Your task to perform on an android device: Search for the best rated mechanical keyboard on Amazon. Image 0: 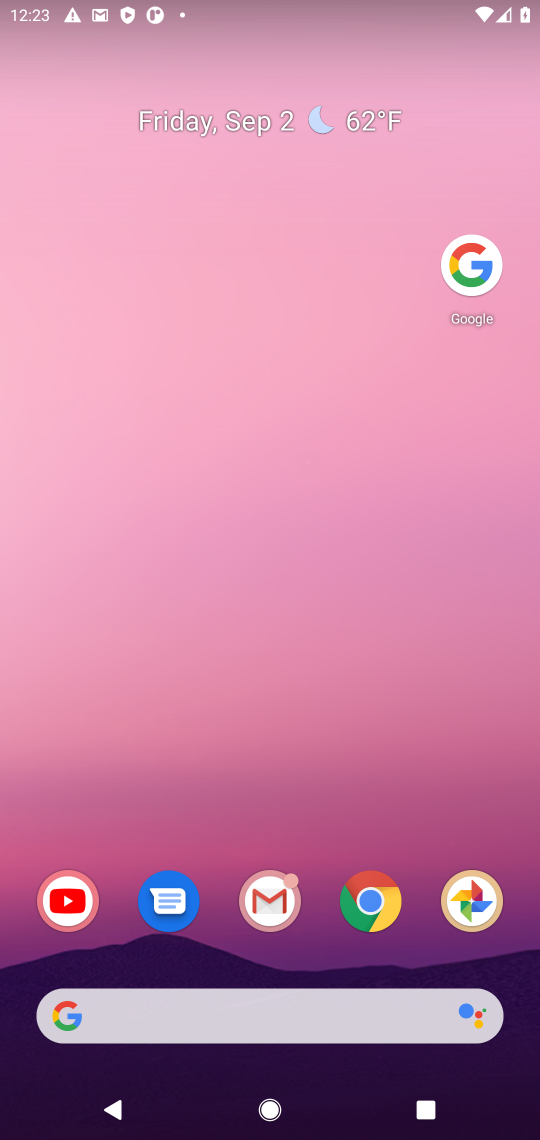
Step 0: drag from (298, 954) to (304, 100)
Your task to perform on an android device: Search for the best rated mechanical keyboard on Amazon. Image 1: 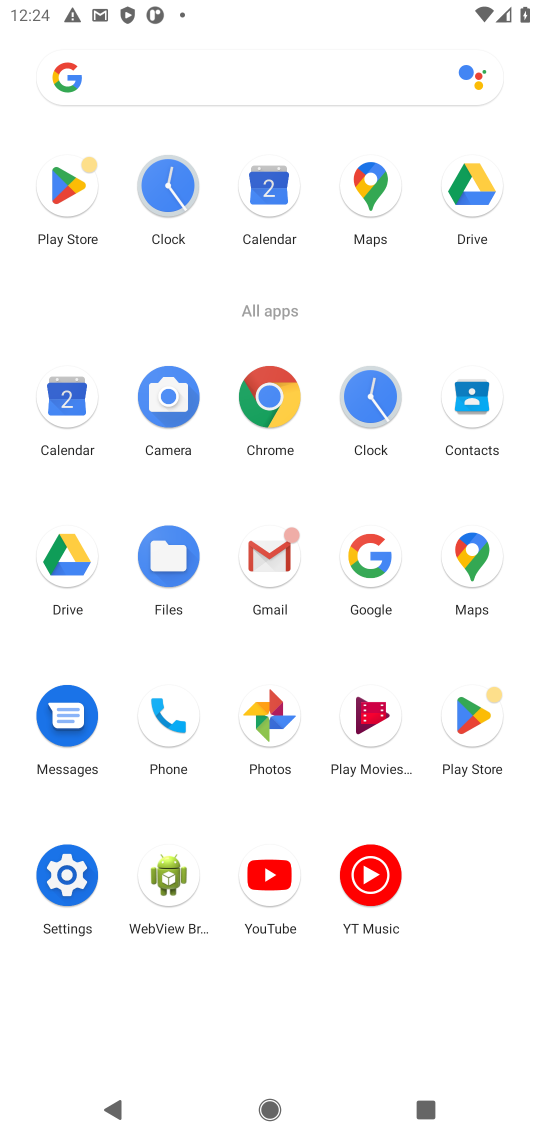
Step 1: click (363, 544)
Your task to perform on an android device: Search for the best rated mechanical keyboard on Amazon. Image 2: 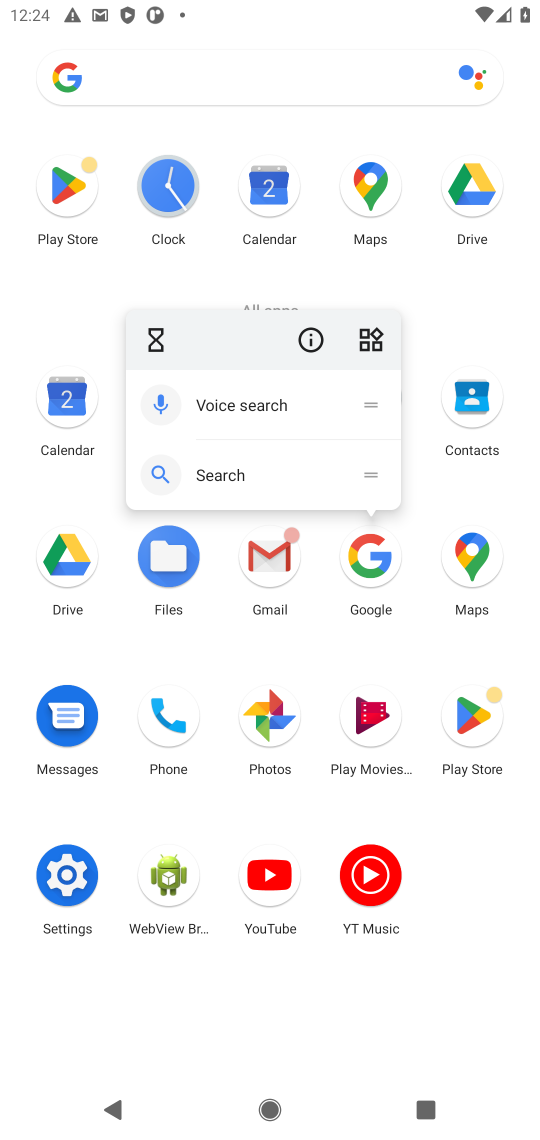
Step 2: click (363, 544)
Your task to perform on an android device: Search for the best rated mechanical keyboard on Amazon. Image 3: 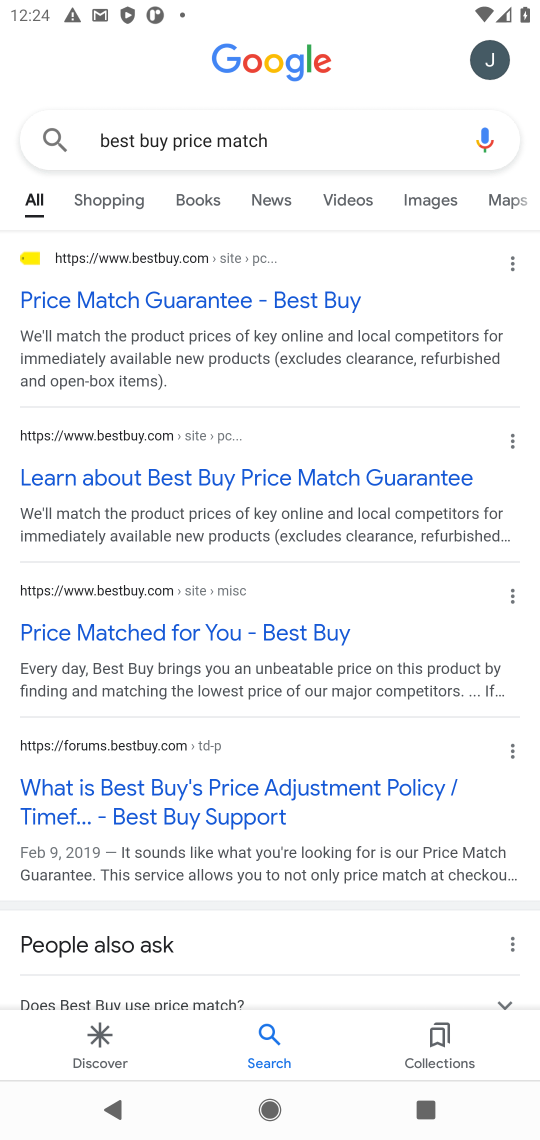
Step 3: click (321, 136)
Your task to perform on an android device: Search for the best rated mechanical keyboard on Amazon. Image 4: 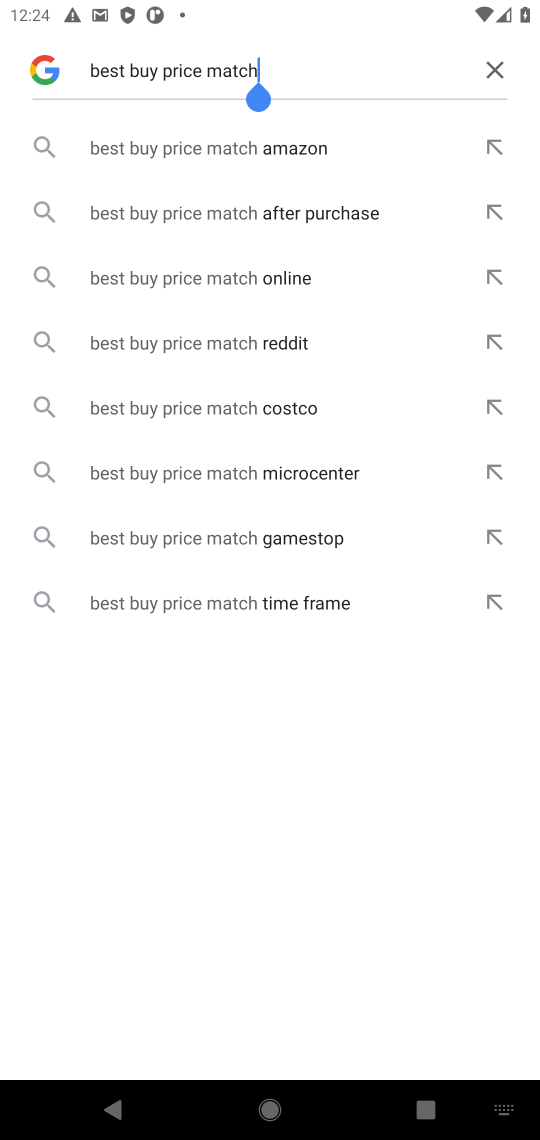
Step 4: click (487, 64)
Your task to perform on an android device: Search for the best rated mechanical keyboard on Amazon. Image 5: 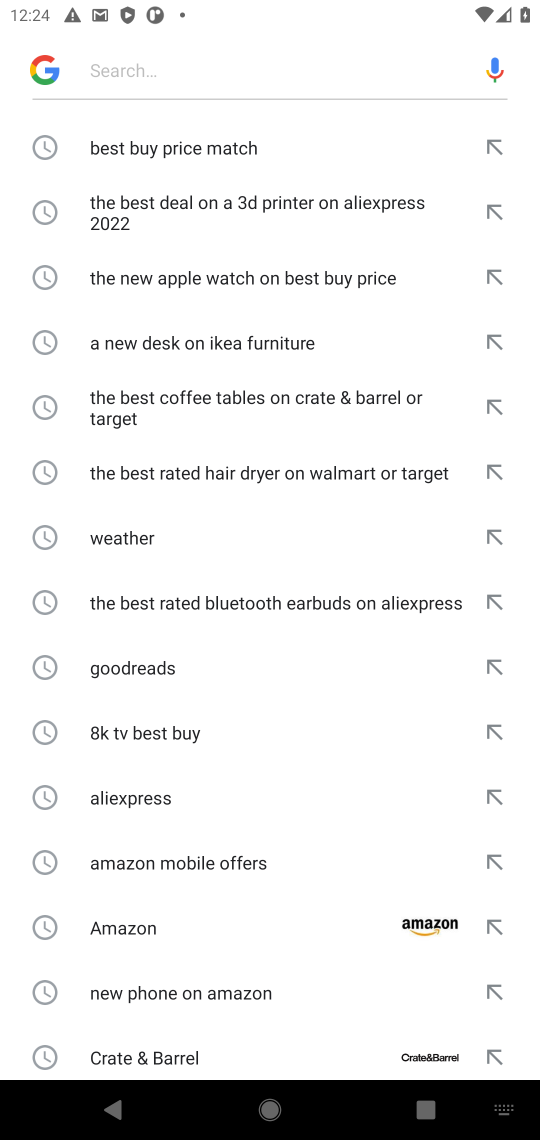
Step 5: click (283, 60)
Your task to perform on an android device: Search for the best rated mechanical keyboard on Amazon. Image 6: 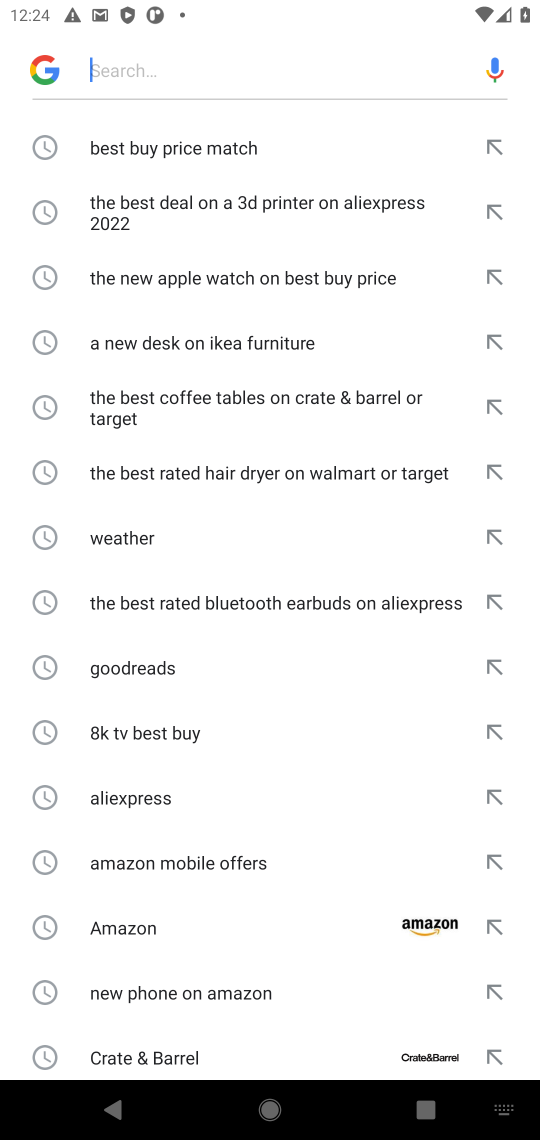
Step 6: type "the best rated mechanical keyboard on Amazon "
Your task to perform on an android device: Search for the best rated mechanical keyboard on Amazon. Image 7: 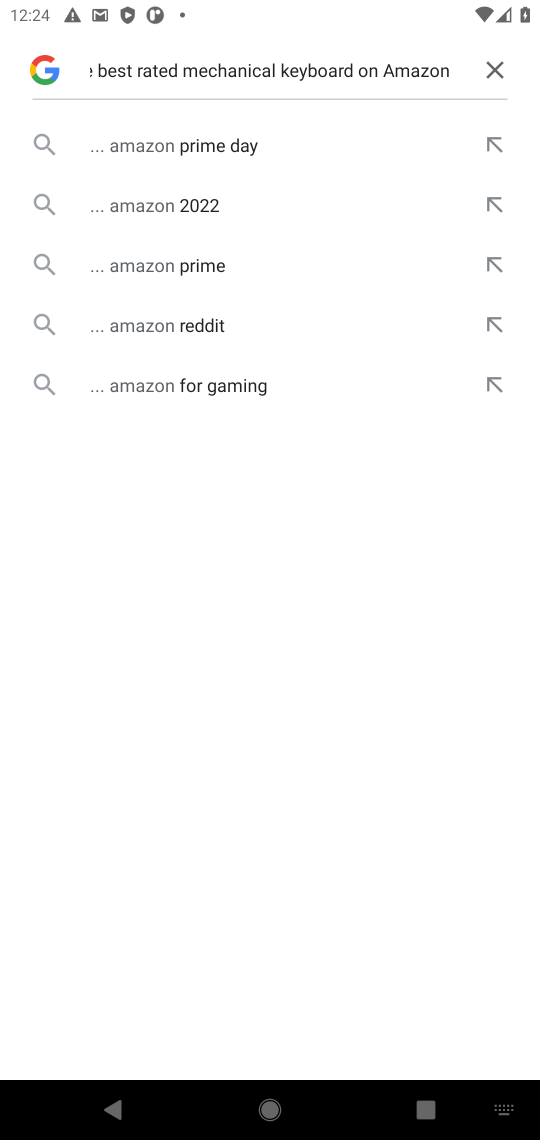
Step 7: click (177, 210)
Your task to perform on an android device: Search for the best rated mechanical keyboard on Amazon. Image 8: 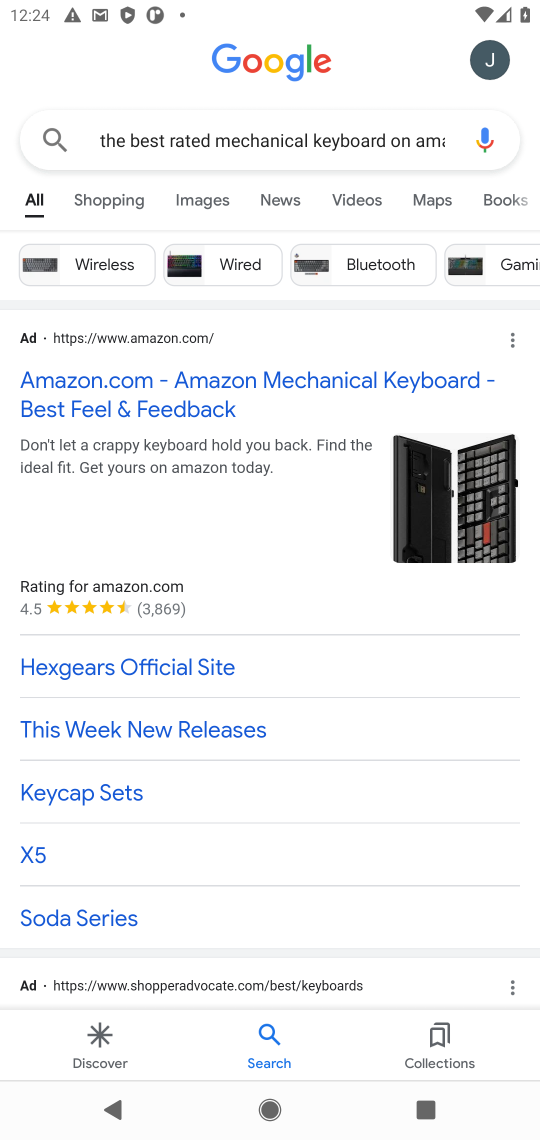
Step 8: click (185, 375)
Your task to perform on an android device: Search for the best rated mechanical keyboard on Amazon. Image 9: 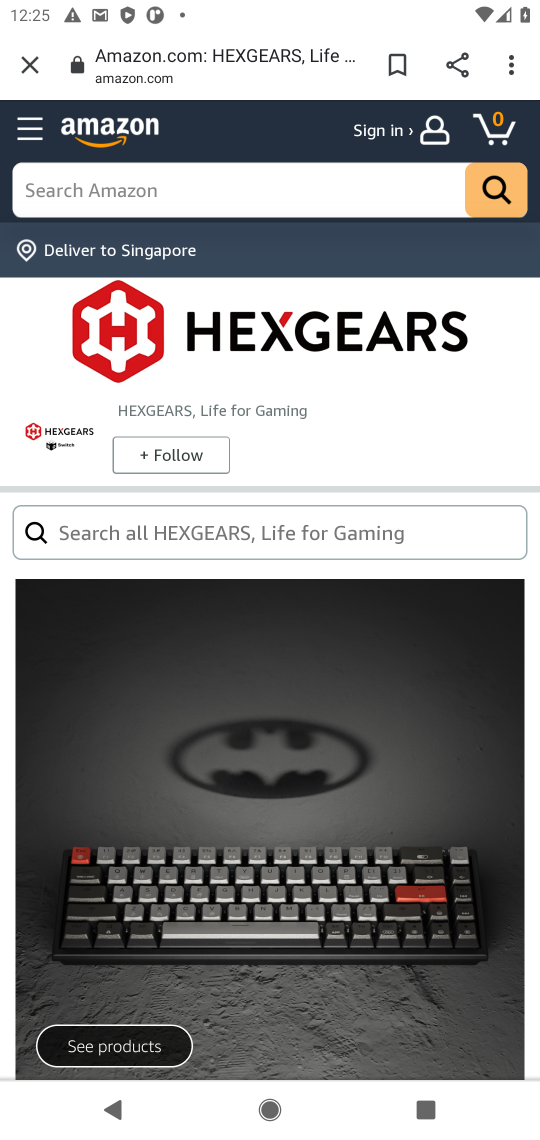
Step 9: task complete